Your task to perform on an android device: Open calendar and show me the second week of next month Image 0: 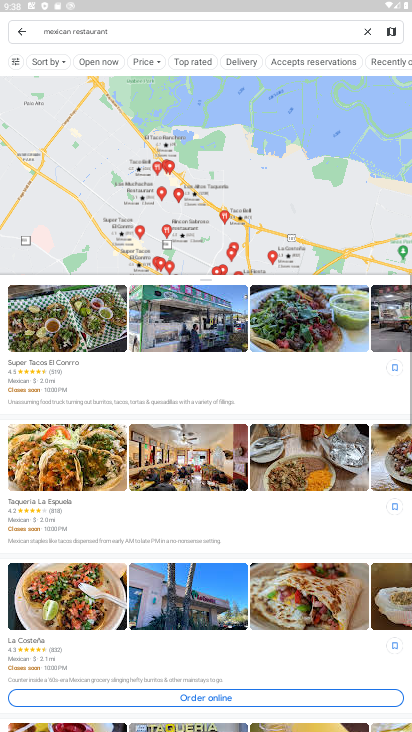
Step 0: press home button
Your task to perform on an android device: Open calendar and show me the second week of next month Image 1: 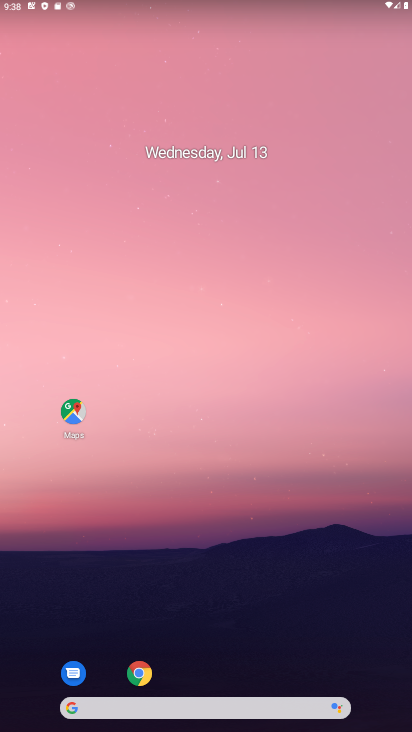
Step 1: click (220, 152)
Your task to perform on an android device: Open calendar and show me the second week of next month Image 2: 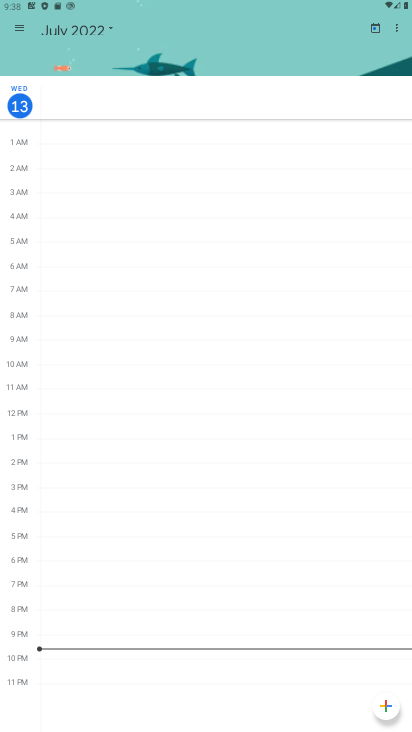
Step 2: click (85, 31)
Your task to perform on an android device: Open calendar and show me the second week of next month Image 3: 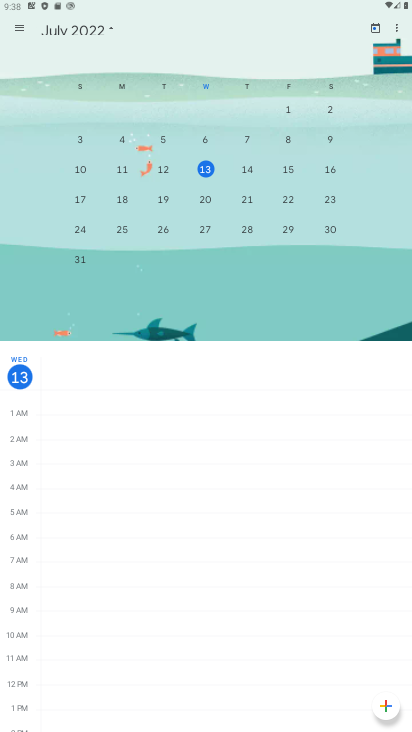
Step 3: drag from (343, 256) to (85, 255)
Your task to perform on an android device: Open calendar and show me the second week of next month Image 4: 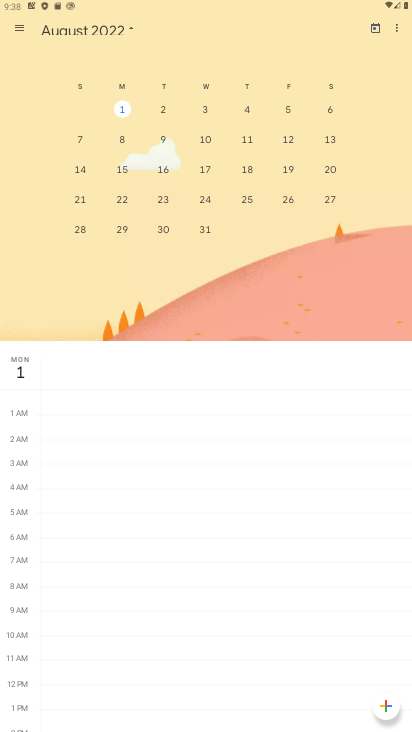
Step 4: click (171, 142)
Your task to perform on an android device: Open calendar and show me the second week of next month Image 5: 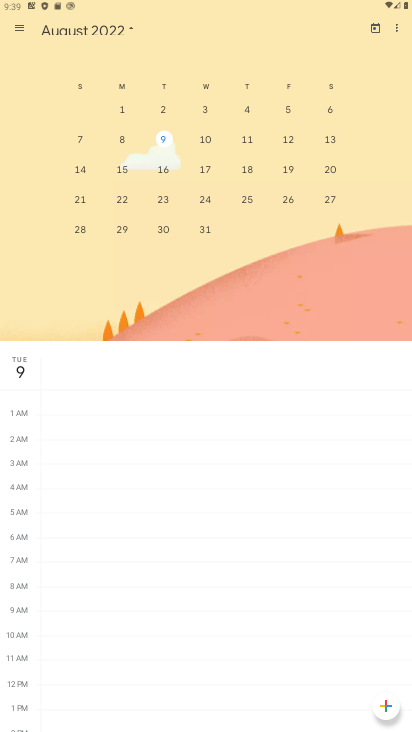
Step 5: task complete